Your task to perform on an android device: Open privacy settings Image 0: 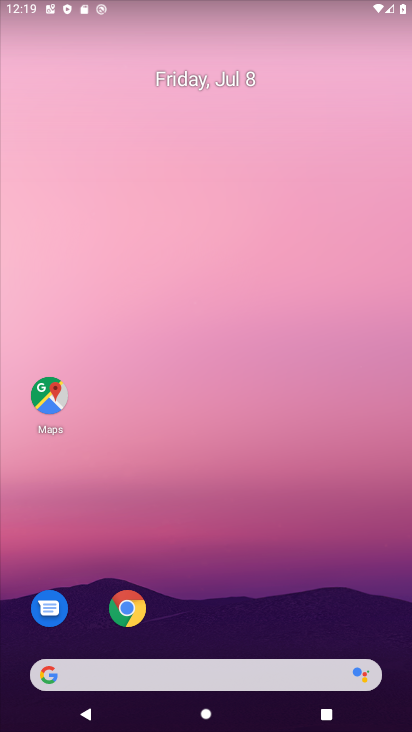
Step 0: drag from (265, 618) to (212, 20)
Your task to perform on an android device: Open privacy settings Image 1: 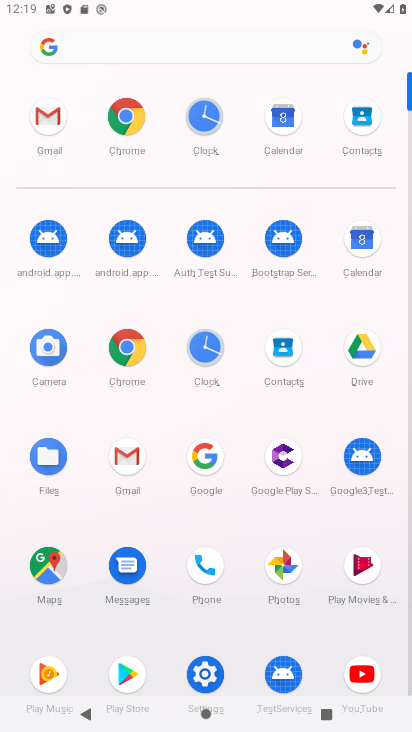
Step 1: click (196, 675)
Your task to perform on an android device: Open privacy settings Image 2: 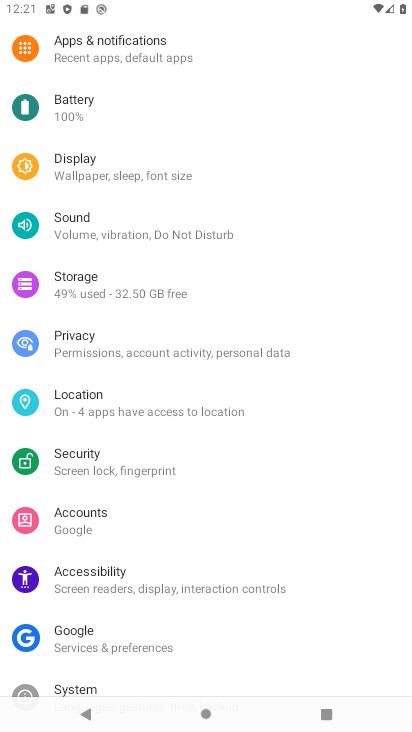
Step 2: click (149, 347)
Your task to perform on an android device: Open privacy settings Image 3: 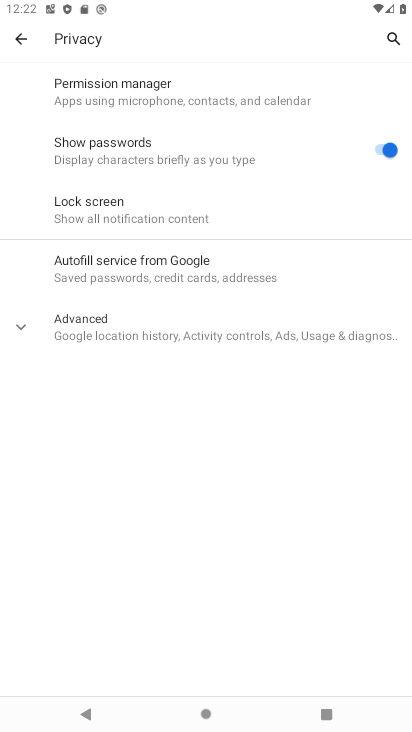
Step 3: task complete